Your task to perform on an android device: manage bookmarks in the chrome app Image 0: 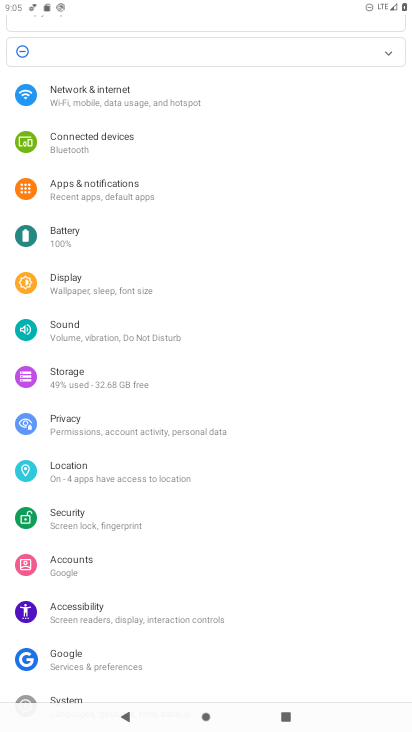
Step 0: press home button
Your task to perform on an android device: manage bookmarks in the chrome app Image 1: 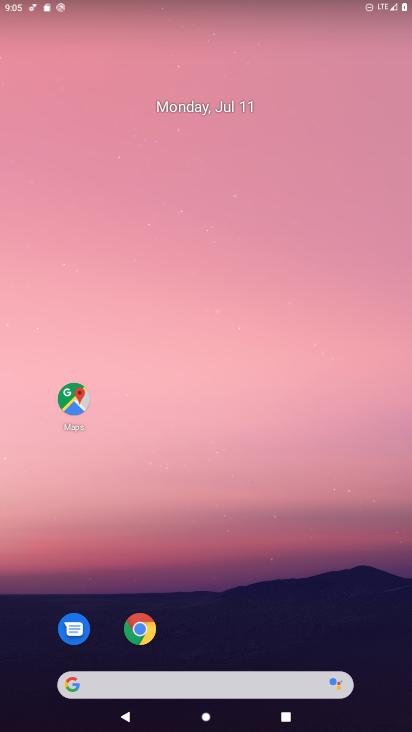
Step 1: click (141, 629)
Your task to perform on an android device: manage bookmarks in the chrome app Image 2: 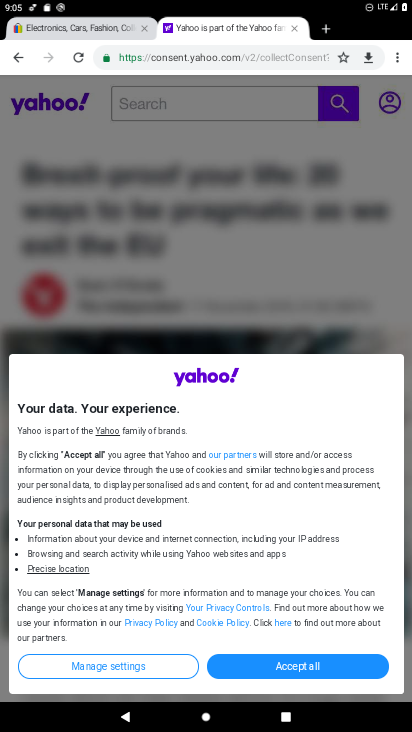
Step 2: click (399, 51)
Your task to perform on an android device: manage bookmarks in the chrome app Image 3: 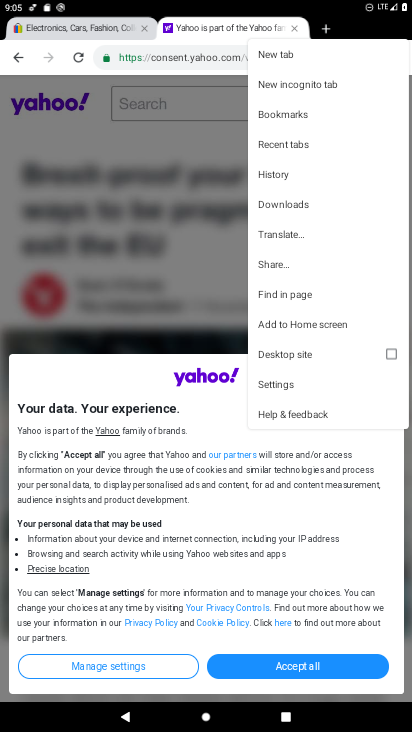
Step 3: click (287, 110)
Your task to perform on an android device: manage bookmarks in the chrome app Image 4: 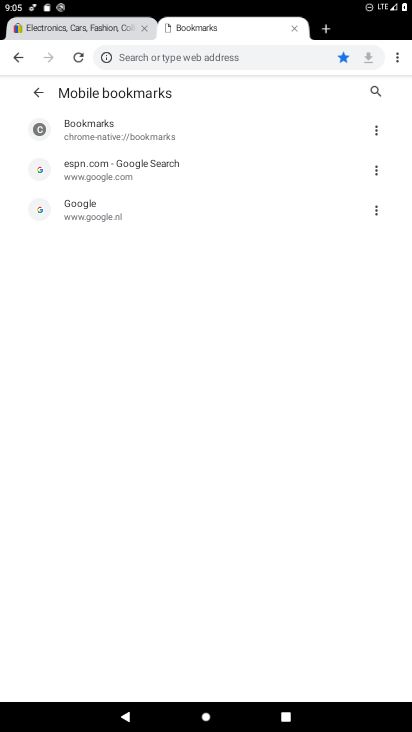
Step 4: click (196, 131)
Your task to perform on an android device: manage bookmarks in the chrome app Image 5: 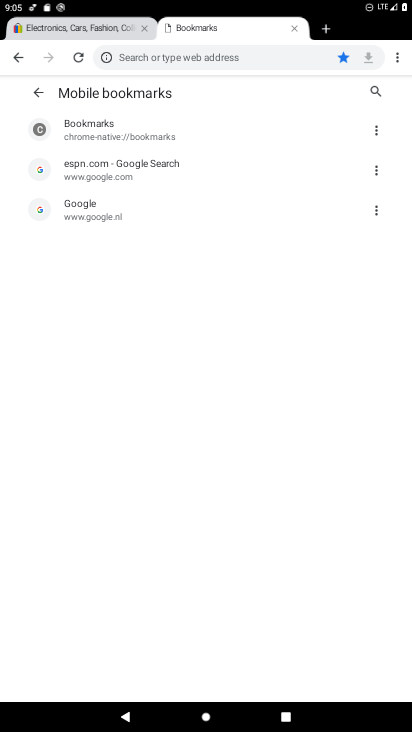
Step 5: click (370, 158)
Your task to perform on an android device: manage bookmarks in the chrome app Image 6: 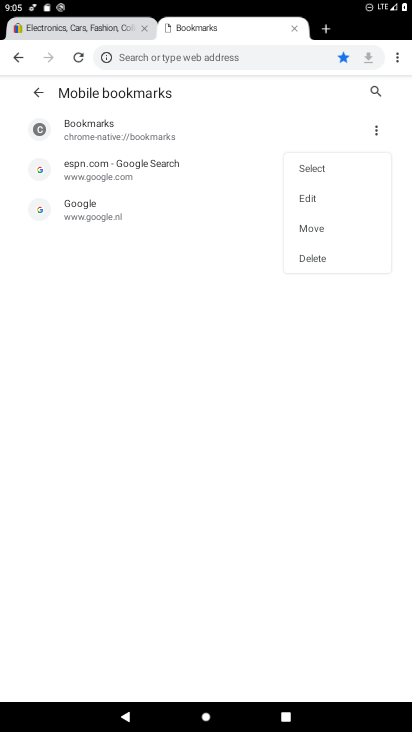
Step 6: click (319, 264)
Your task to perform on an android device: manage bookmarks in the chrome app Image 7: 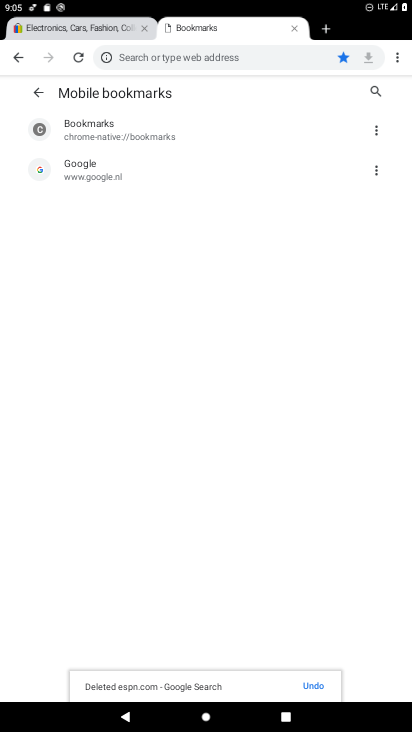
Step 7: task complete